Your task to perform on an android device: Check the settings for the Google Play Movies app Image 0: 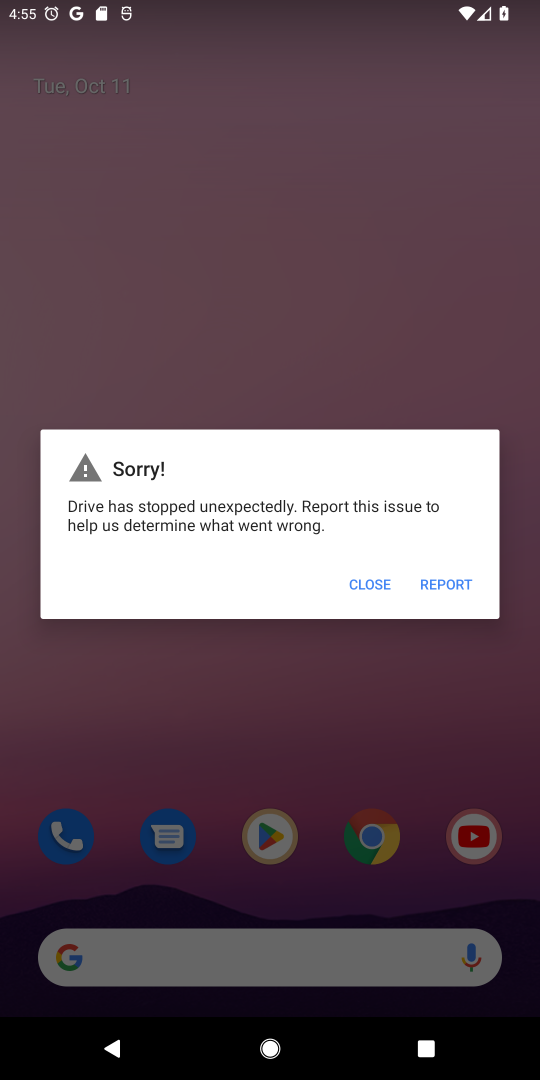
Step 0: press home button
Your task to perform on an android device: Check the settings for the Google Play Movies app Image 1: 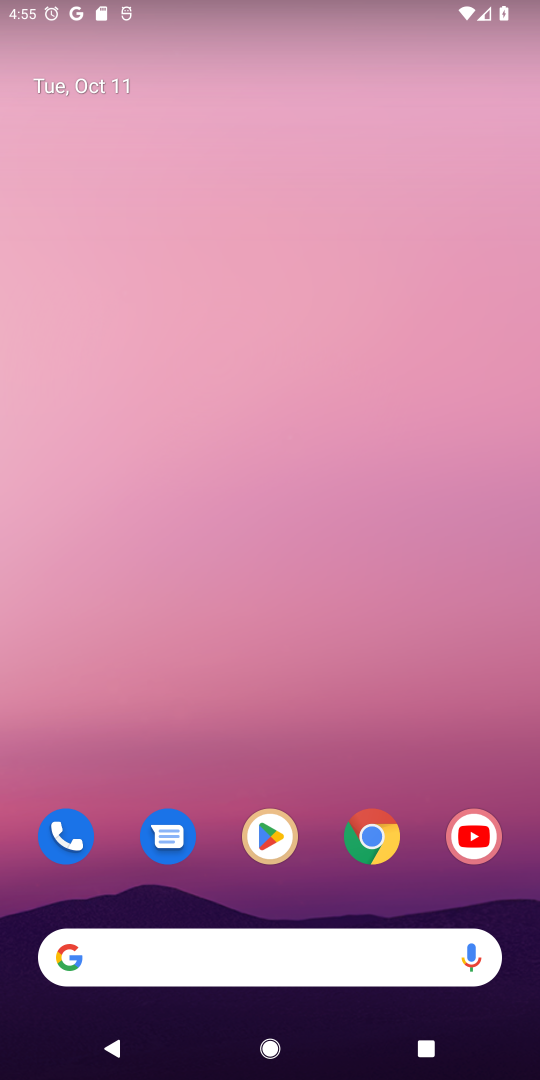
Step 1: task complete